Your task to perform on an android device: empty trash in google photos Image 0: 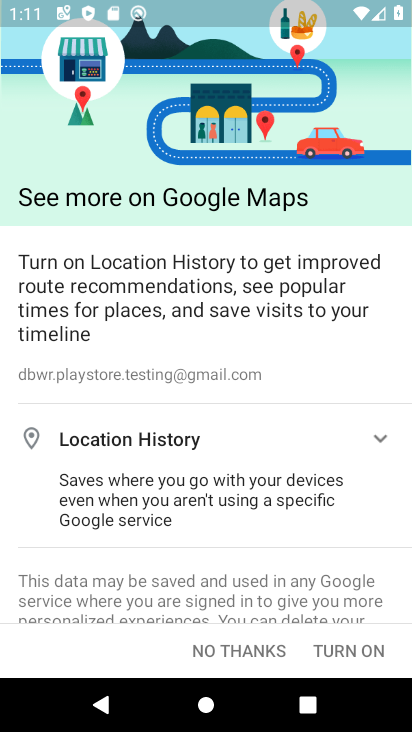
Step 0: press home button
Your task to perform on an android device: empty trash in google photos Image 1: 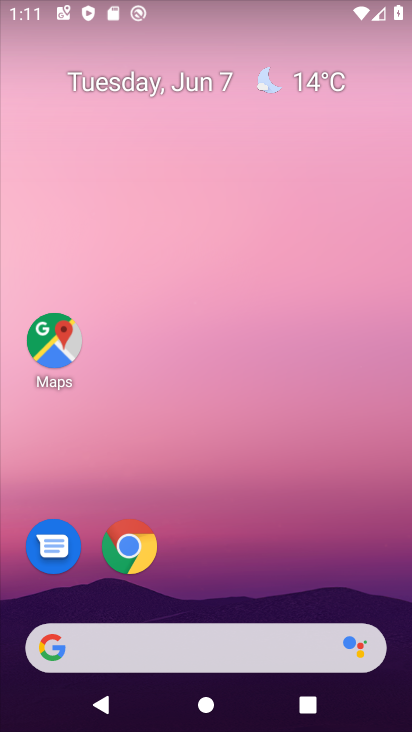
Step 1: drag from (283, 526) to (276, 106)
Your task to perform on an android device: empty trash in google photos Image 2: 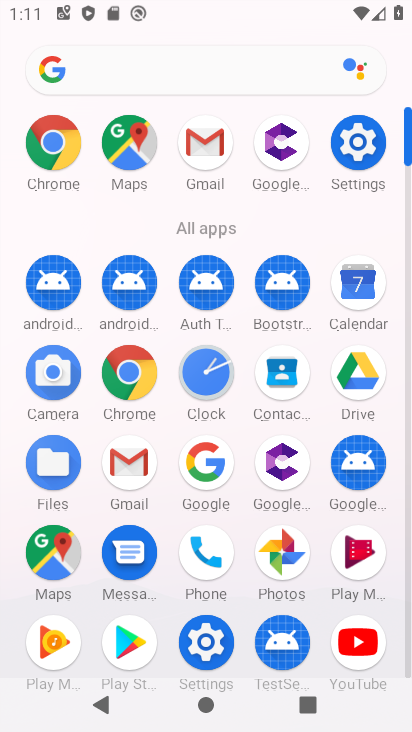
Step 2: click (289, 540)
Your task to perform on an android device: empty trash in google photos Image 3: 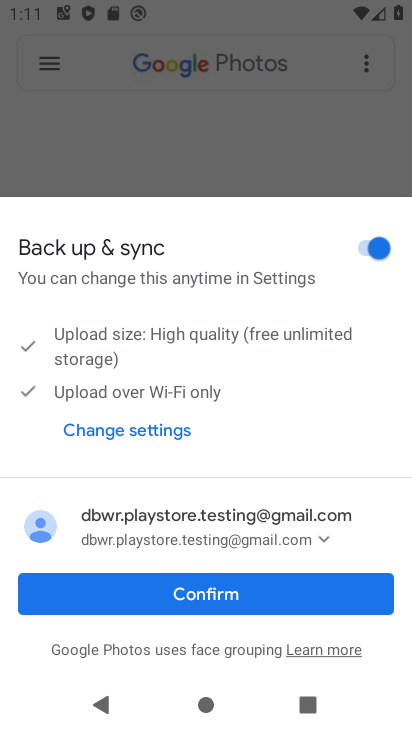
Step 3: click (191, 587)
Your task to perform on an android device: empty trash in google photos Image 4: 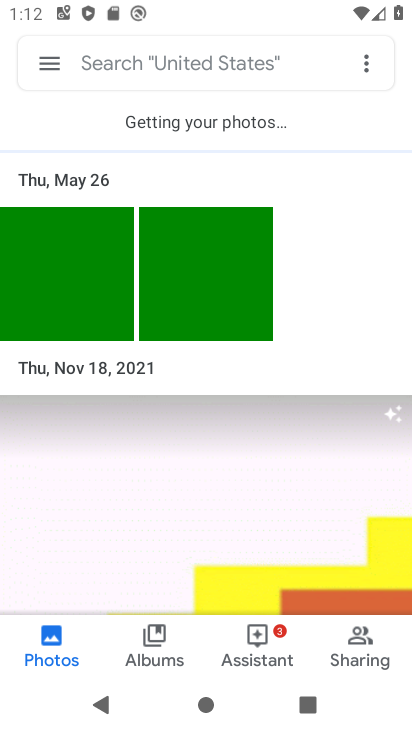
Step 4: click (50, 66)
Your task to perform on an android device: empty trash in google photos Image 5: 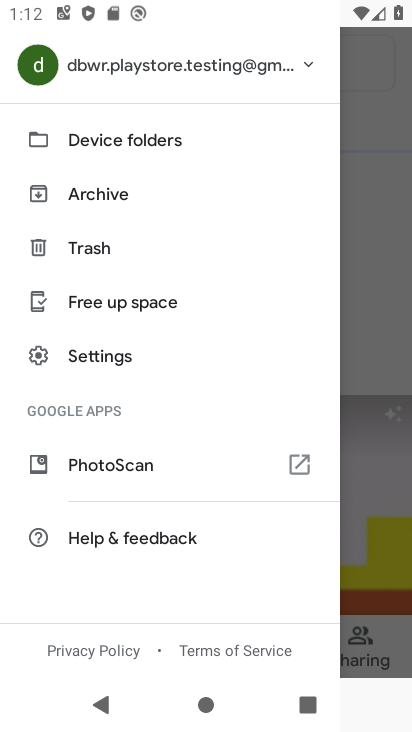
Step 5: click (119, 70)
Your task to perform on an android device: empty trash in google photos Image 6: 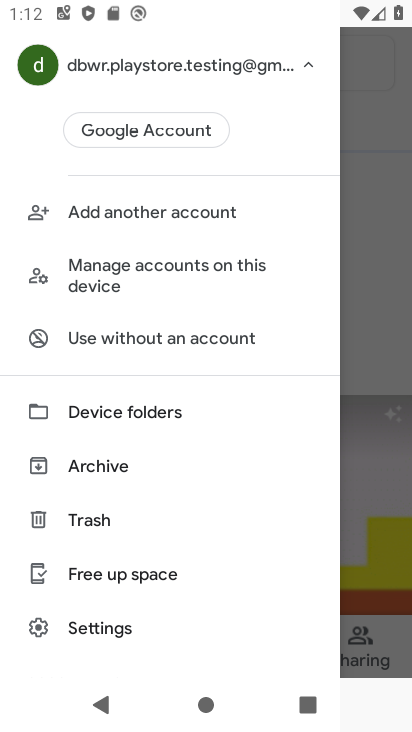
Step 6: drag from (263, 601) to (254, 288)
Your task to perform on an android device: empty trash in google photos Image 7: 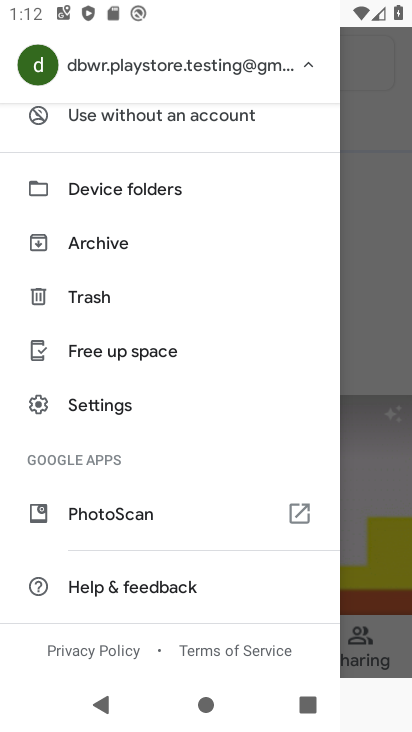
Step 7: click (100, 295)
Your task to perform on an android device: empty trash in google photos Image 8: 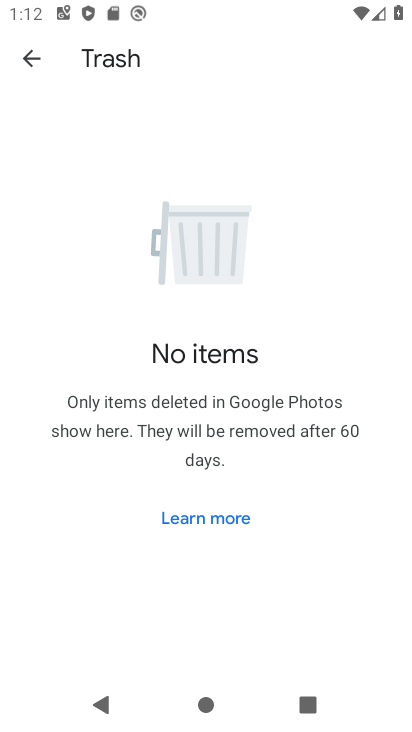
Step 8: task complete